Your task to perform on an android device: toggle location history Image 0: 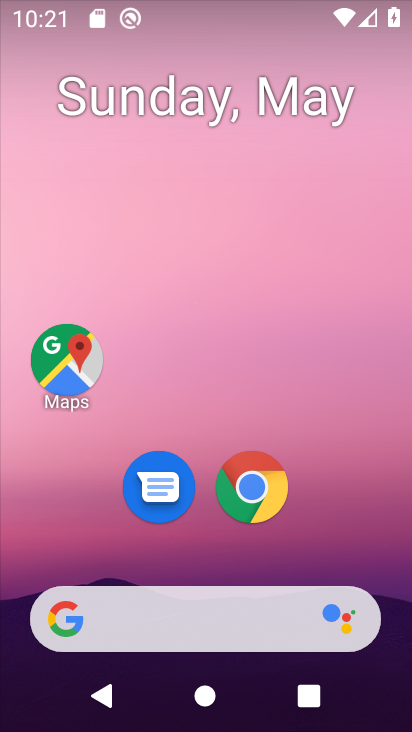
Step 0: drag from (181, 580) to (231, 176)
Your task to perform on an android device: toggle location history Image 1: 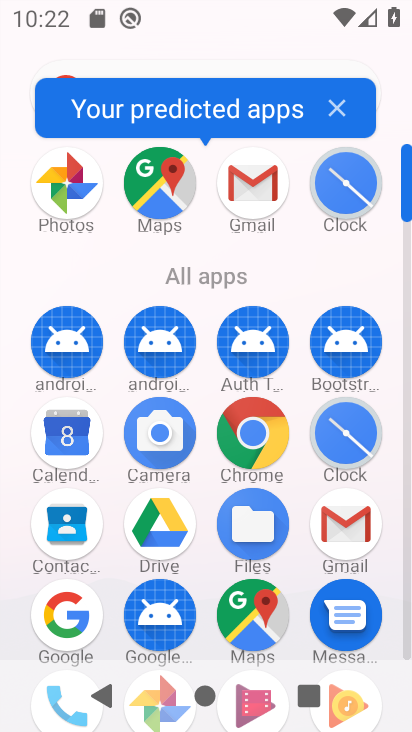
Step 1: drag from (199, 624) to (244, 433)
Your task to perform on an android device: toggle location history Image 2: 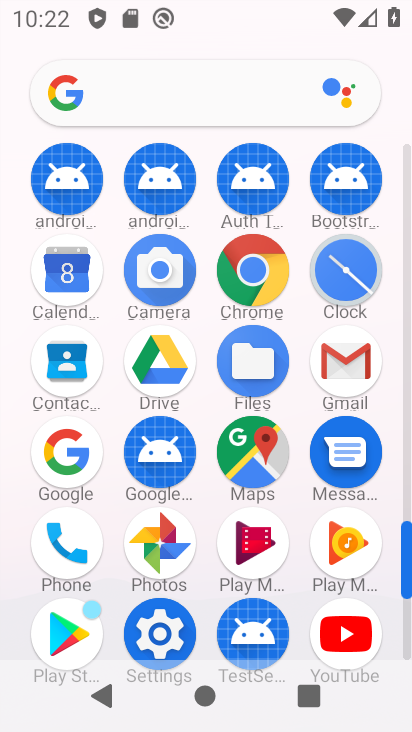
Step 2: click (161, 629)
Your task to perform on an android device: toggle location history Image 3: 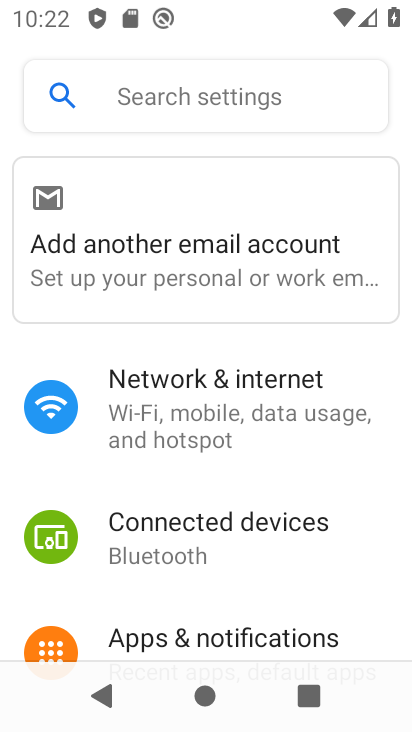
Step 3: drag from (176, 692) to (225, 522)
Your task to perform on an android device: toggle location history Image 4: 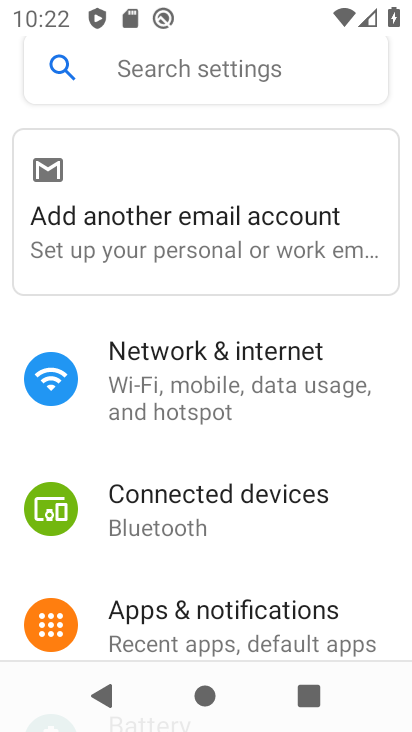
Step 4: drag from (134, 622) to (263, 346)
Your task to perform on an android device: toggle location history Image 5: 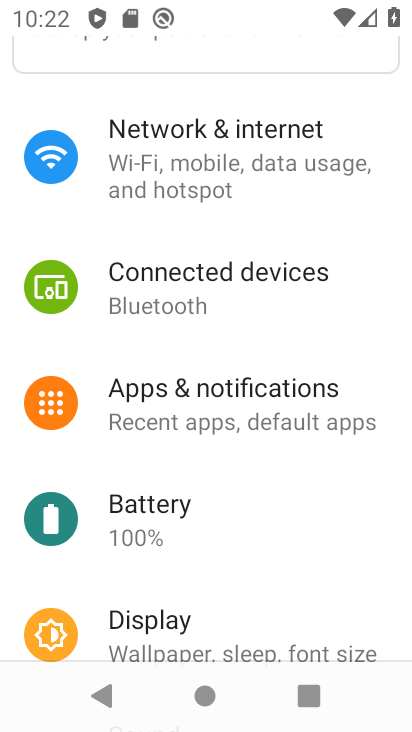
Step 5: drag from (242, 516) to (324, 296)
Your task to perform on an android device: toggle location history Image 6: 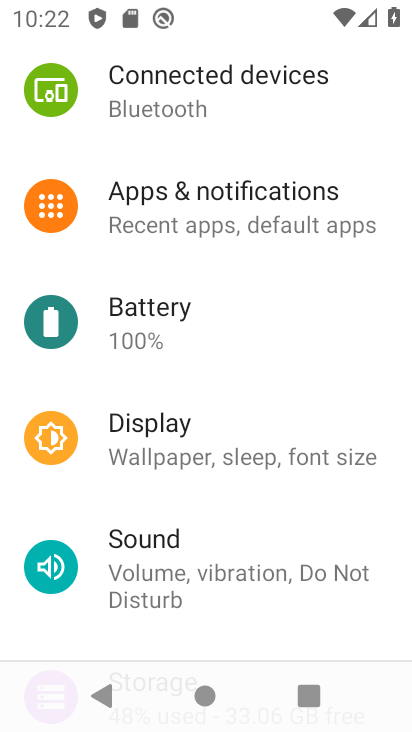
Step 6: drag from (163, 591) to (212, 440)
Your task to perform on an android device: toggle location history Image 7: 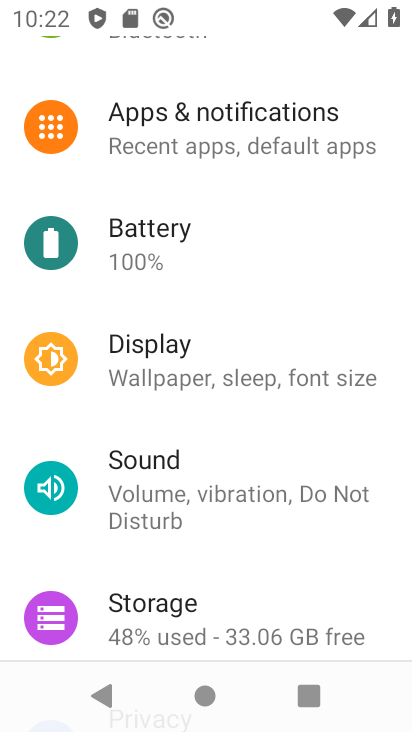
Step 7: drag from (233, 593) to (294, 328)
Your task to perform on an android device: toggle location history Image 8: 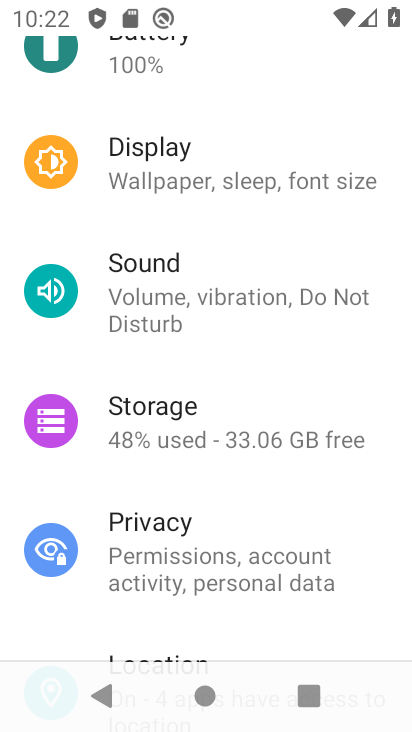
Step 8: drag from (212, 530) to (284, 260)
Your task to perform on an android device: toggle location history Image 9: 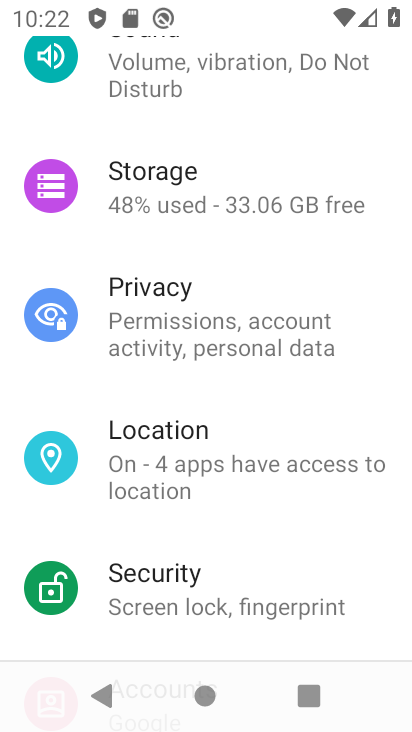
Step 9: click (185, 435)
Your task to perform on an android device: toggle location history Image 10: 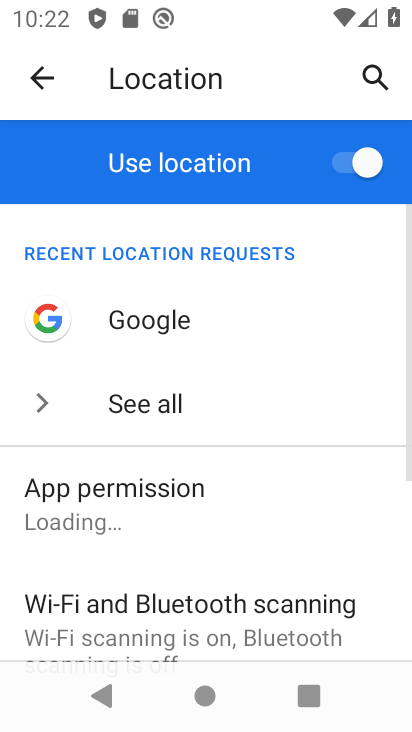
Step 10: drag from (218, 608) to (283, 416)
Your task to perform on an android device: toggle location history Image 11: 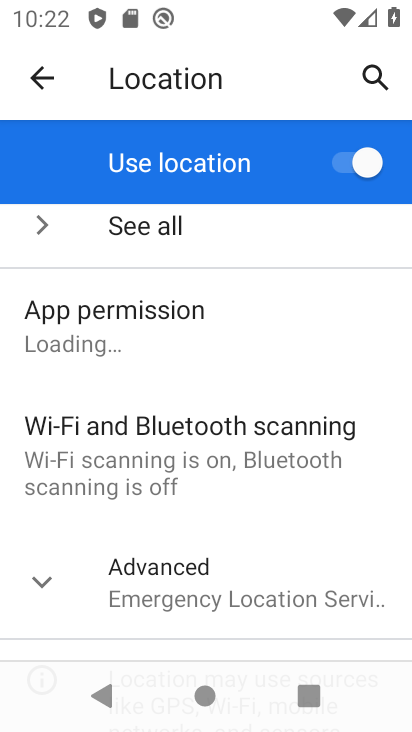
Step 11: click (199, 592)
Your task to perform on an android device: toggle location history Image 12: 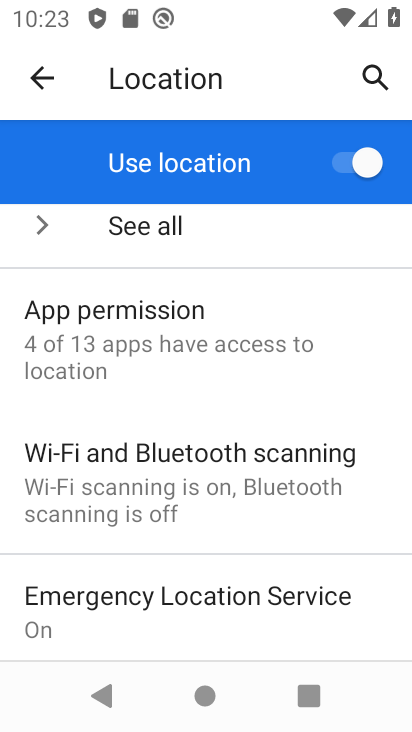
Step 12: drag from (189, 573) to (295, 294)
Your task to perform on an android device: toggle location history Image 13: 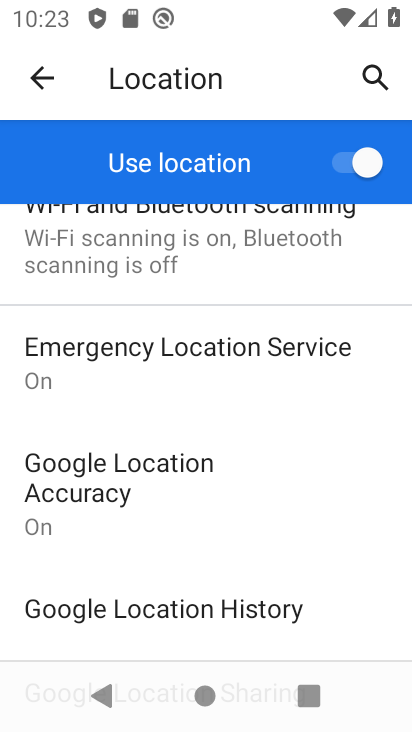
Step 13: click (271, 598)
Your task to perform on an android device: toggle location history Image 14: 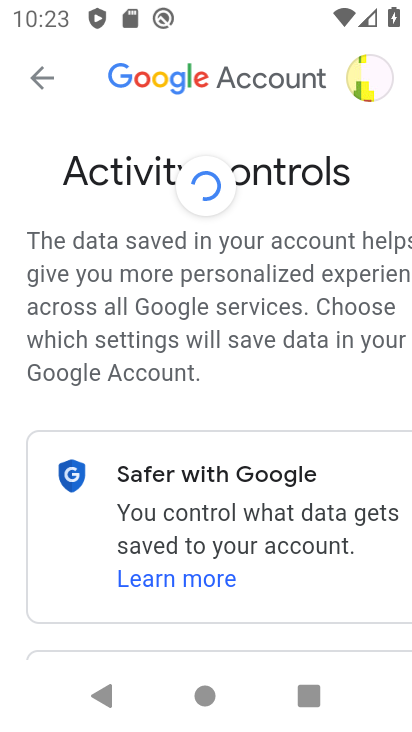
Step 14: drag from (271, 598) to (296, 402)
Your task to perform on an android device: toggle location history Image 15: 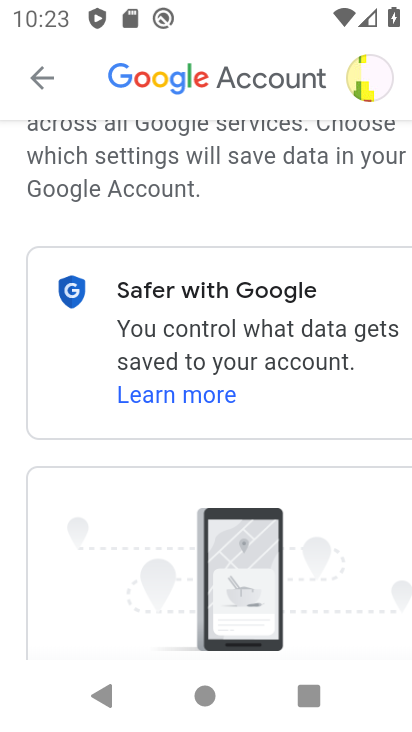
Step 15: drag from (213, 580) to (275, 378)
Your task to perform on an android device: toggle location history Image 16: 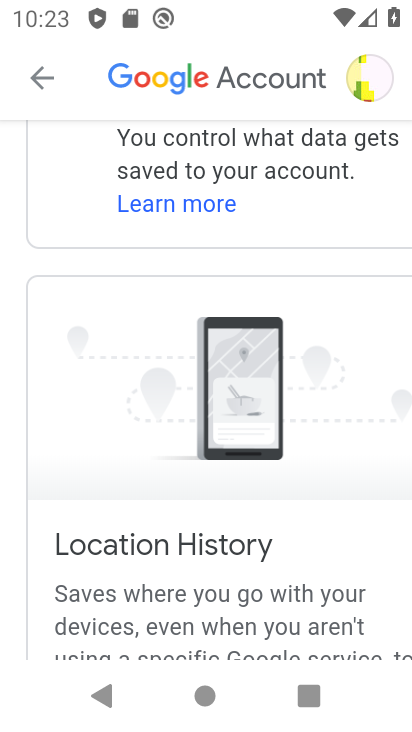
Step 16: drag from (187, 575) to (272, 334)
Your task to perform on an android device: toggle location history Image 17: 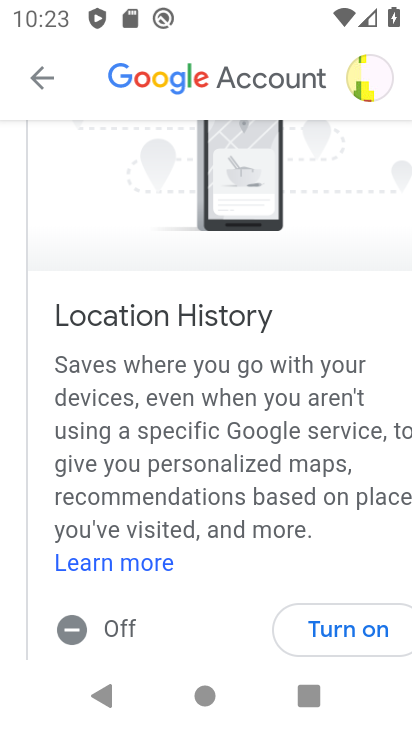
Step 17: drag from (297, 598) to (360, 450)
Your task to perform on an android device: toggle location history Image 18: 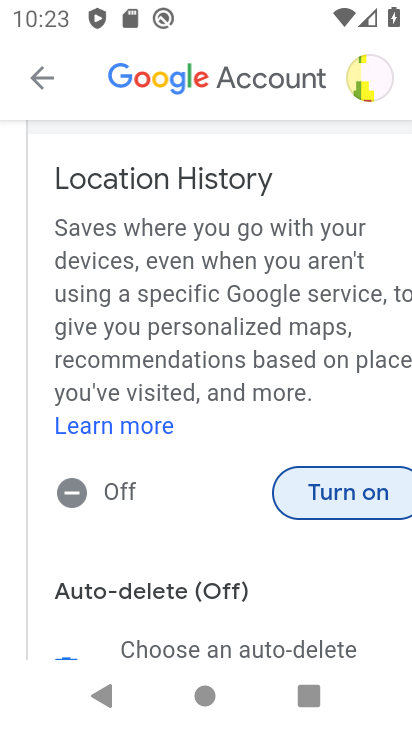
Step 18: click (345, 496)
Your task to perform on an android device: toggle location history Image 19: 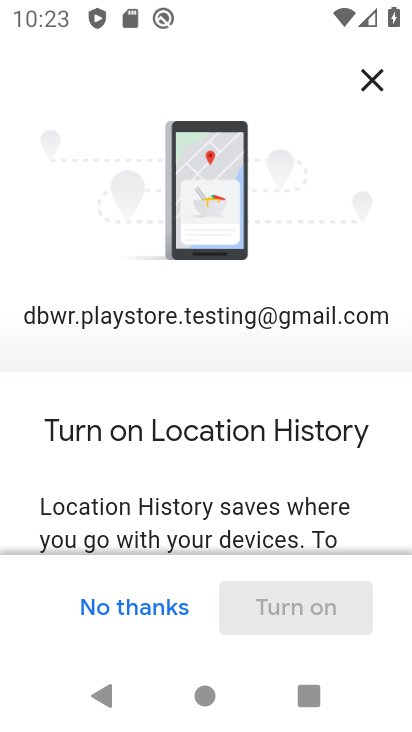
Step 19: drag from (254, 508) to (390, 174)
Your task to perform on an android device: toggle location history Image 20: 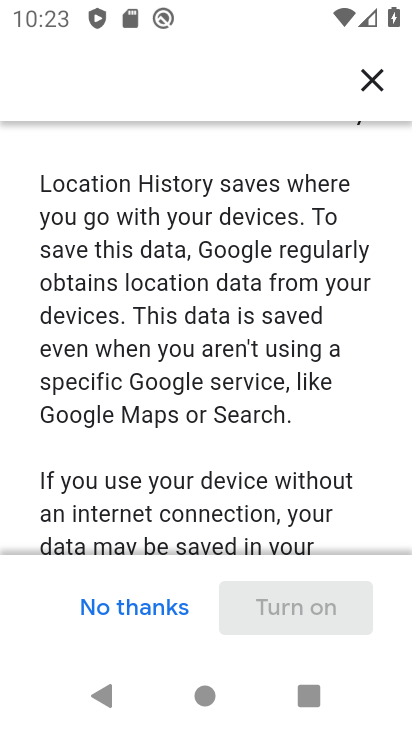
Step 20: drag from (286, 478) to (409, 274)
Your task to perform on an android device: toggle location history Image 21: 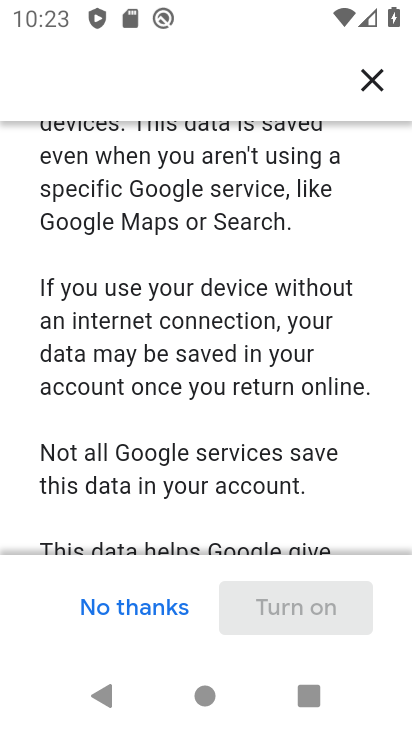
Step 21: drag from (291, 488) to (404, 287)
Your task to perform on an android device: toggle location history Image 22: 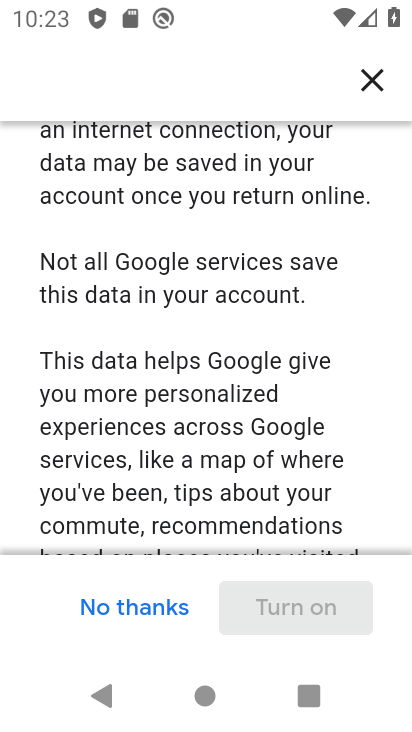
Step 22: drag from (283, 487) to (284, 369)
Your task to perform on an android device: toggle location history Image 23: 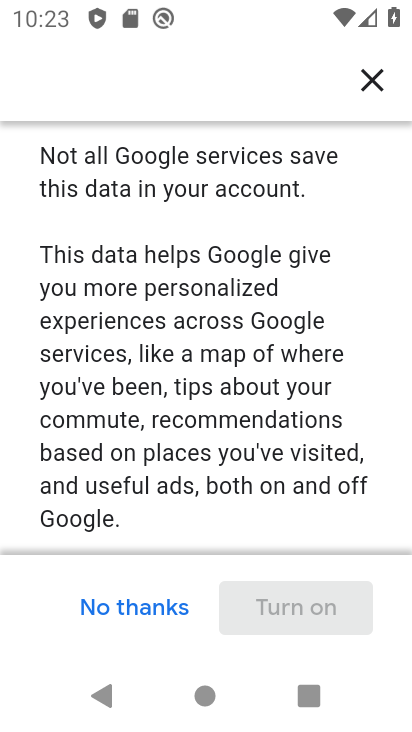
Step 23: drag from (256, 498) to (398, 220)
Your task to perform on an android device: toggle location history Image 24: 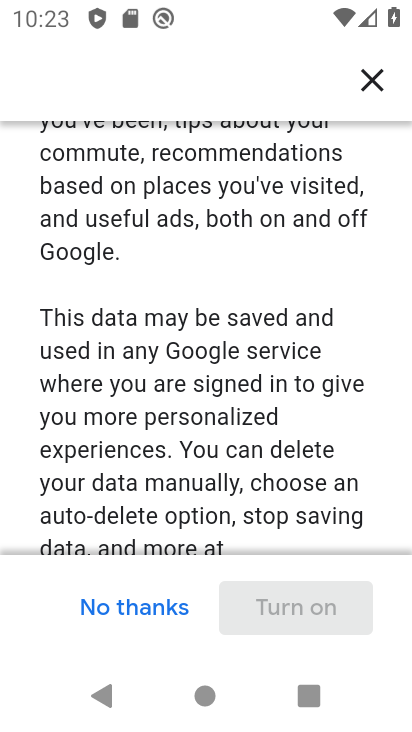
Step 24: drag from (251, 455) to (373, 269)
Your task to perform on an android device: toggle location history Image 25: 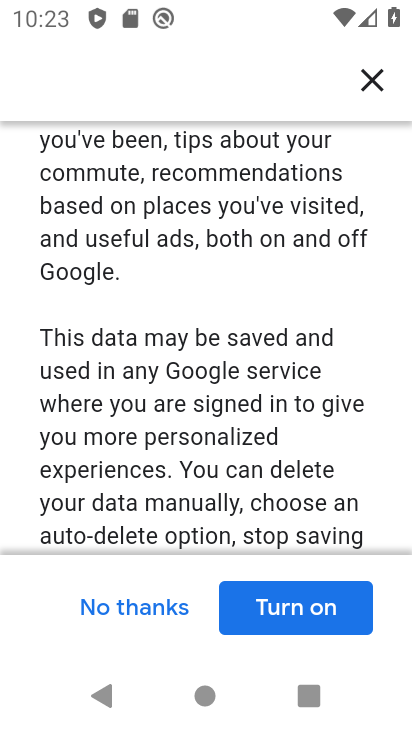
Step 25: click (295, 579)
Your task to perform on an android device: toggle location history Image 26: 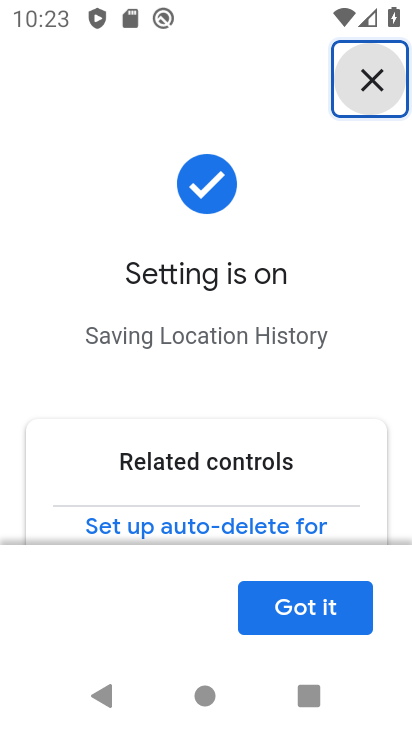
Step 26: click (324, 618)
Your task to perform on an android device: toggle location history Image 27: 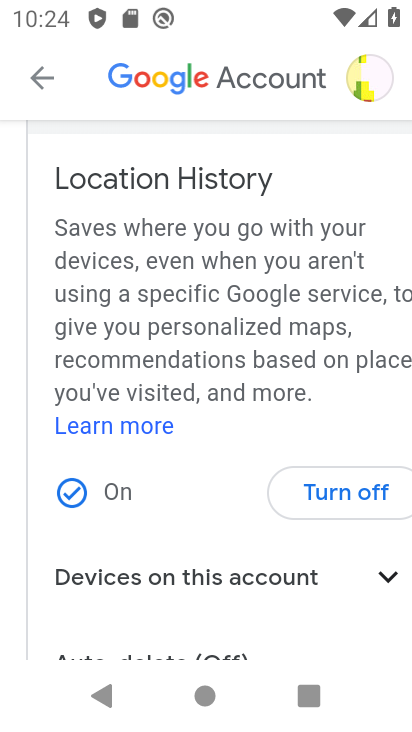
Step 27: task complete